Your task to perform on an android device: Go to Yahoo.com Image 0: 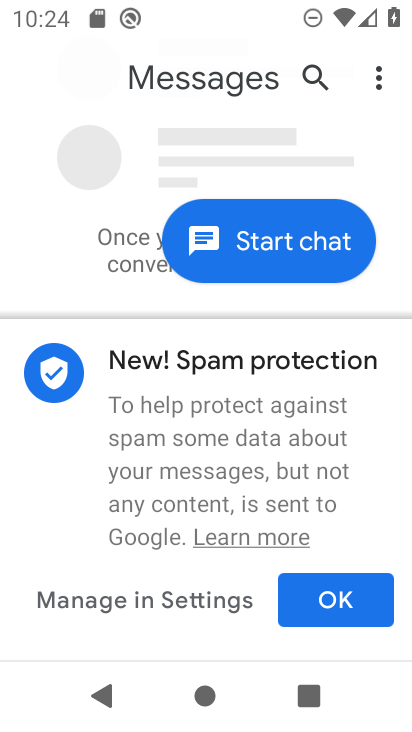
Step 0: press home button
Your task to perform on an android device: Go to Yahoo.com Image 1: 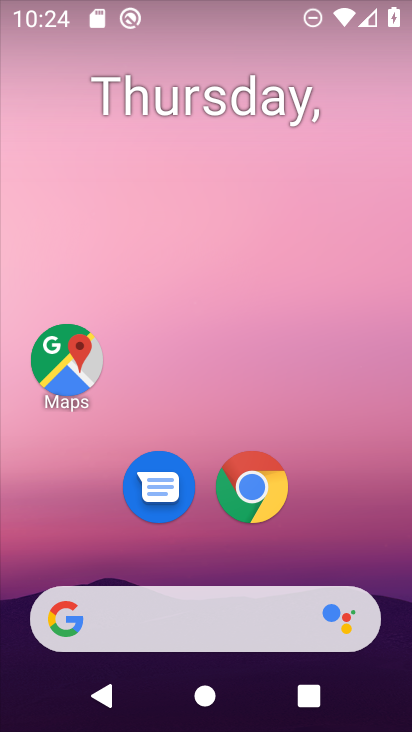
Step 1: click (263, 503)
Your task to perform on an android device: Go to Yahoo.com Image 2: 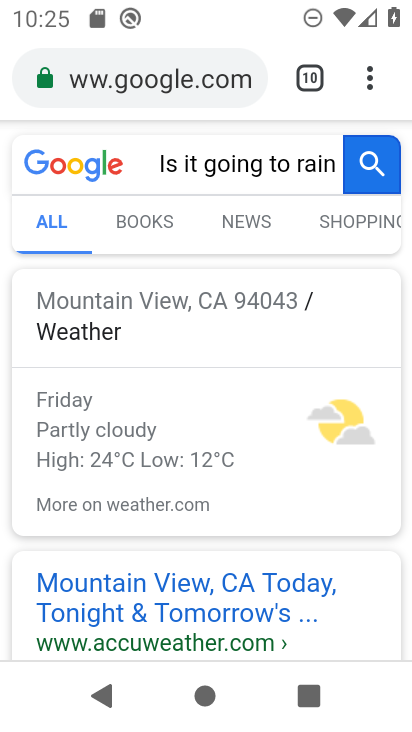
Step 2: click (314, 88)
Your task to perform on an android device: Go to Yahoo.com Image 3: 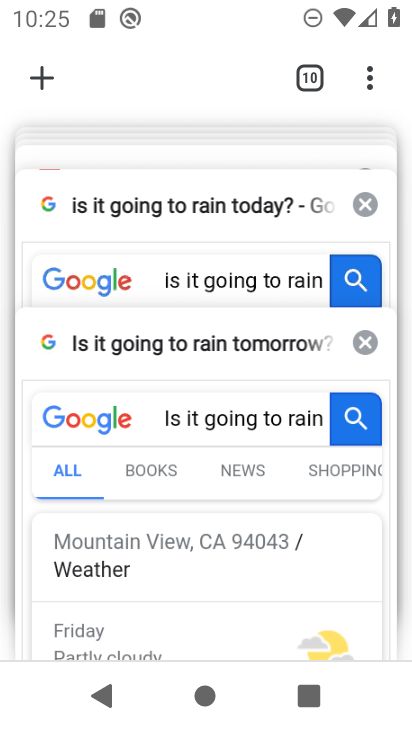
Step 3: click (44, 80)
Your task to perform on an android device: Go to Yahoo.com Image 4: 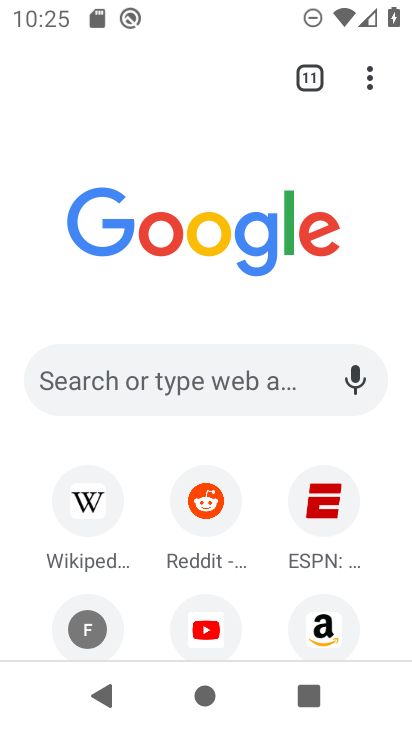
Step 4: click (227, 378)
Your task to perform on an android device: Go to Yahoo.com Image 5: 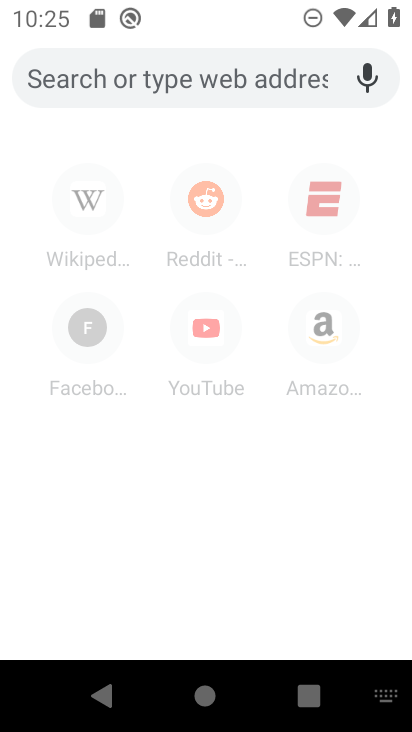
Step 5: type "yahoo.com"
Your task to perform on an android device: Go to Yahoo.com Image 6: 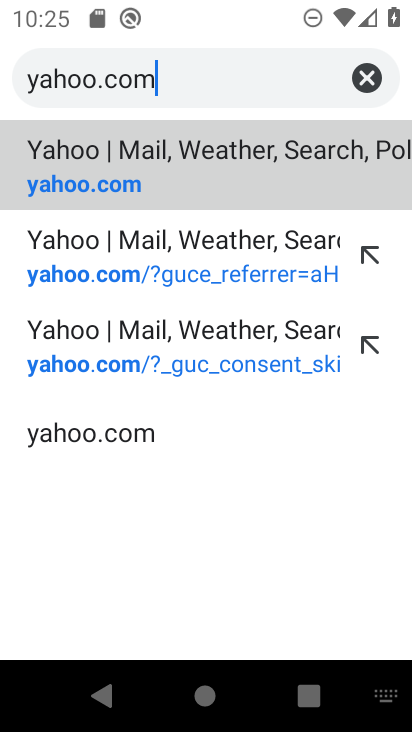
Step 6: click (289, 161)
Your task to perform on an android device: Go to Yahoo.com Image 7: 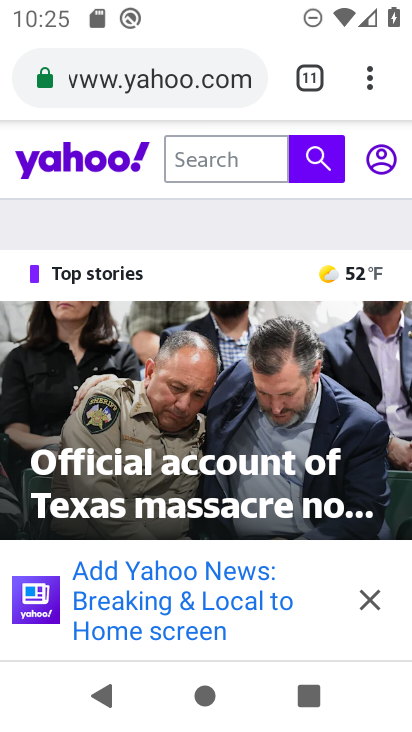
Step 7: task complete